Your task to perform on an android device: Open calendar and show me the second week of next month Image 0: 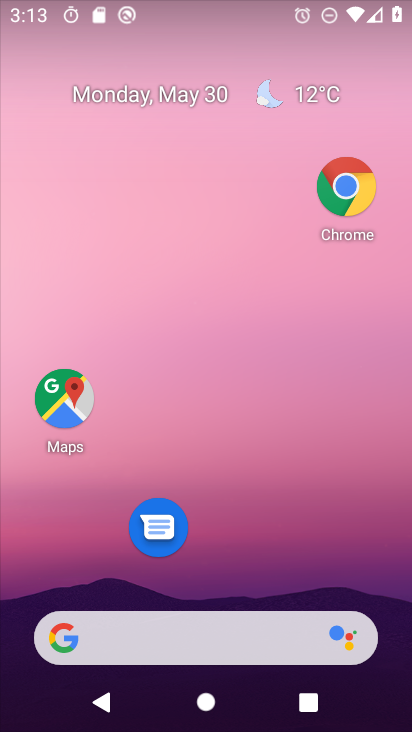
Step 0: drag from (183, 518) to (244, 116)
Your task to perform on an android device: Open calendar and show me the second week of next month Image 1: 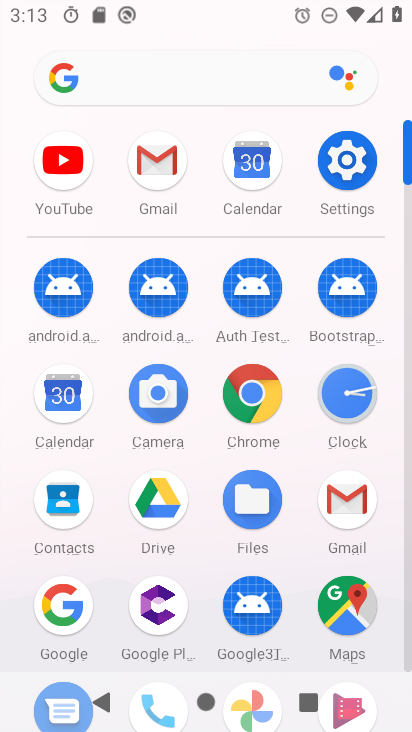
Step 1: drag from (186, 394) to (220, 57)
Your task to perform on an android device: Open calendar and show me the second week of next month Image 2: 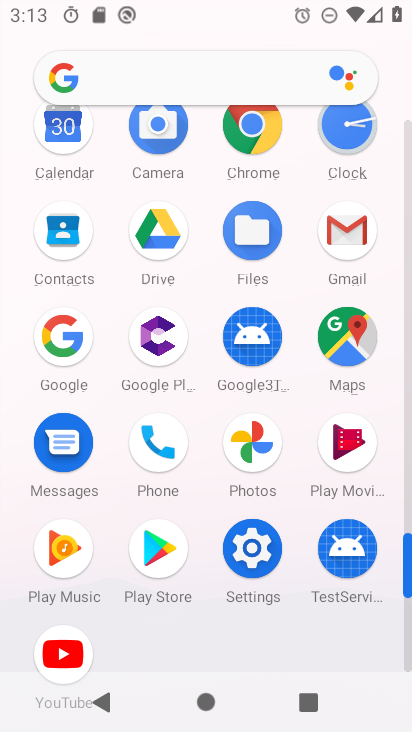
Step 2: click (48, 128)
Your task to perform on an android device: Open calendar and show me the second week of next month Image 3: 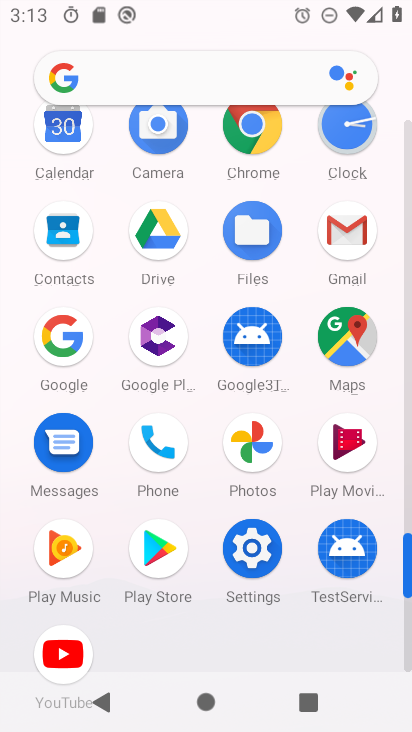
Step 3: click (48, 128)
Your task to perform on an android device: Open calendar and show me the second week of next month Image 4: 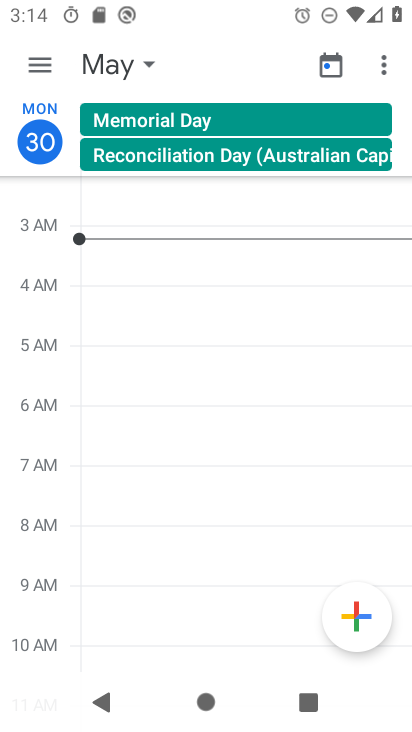
Step 4: click (131, 68)
Your task to perform on an android device: Open calendar and show me the second week of next month Image 5: 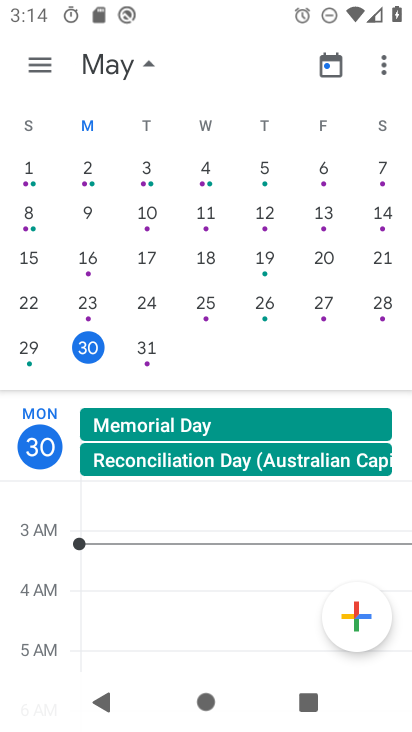
Step 5: drag from (368, 246) to (1, 314)
Your task to perform on an android device: Open calendar and show me the second week of next month Image 6: 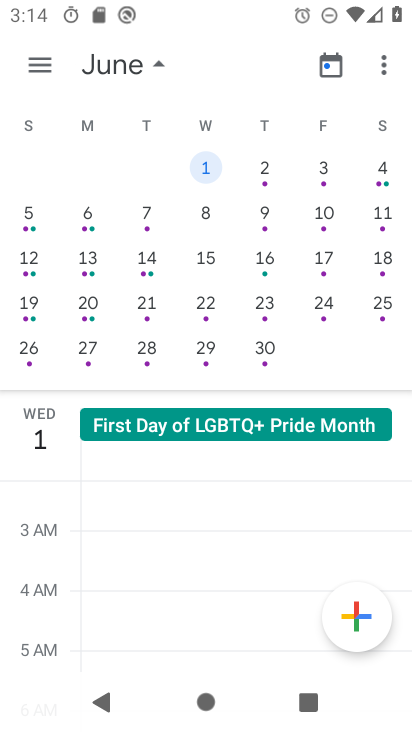
Step 6: click (268, 214)
Your task to perform on an android device: Open calendar and show me the second week of next month Image 7: 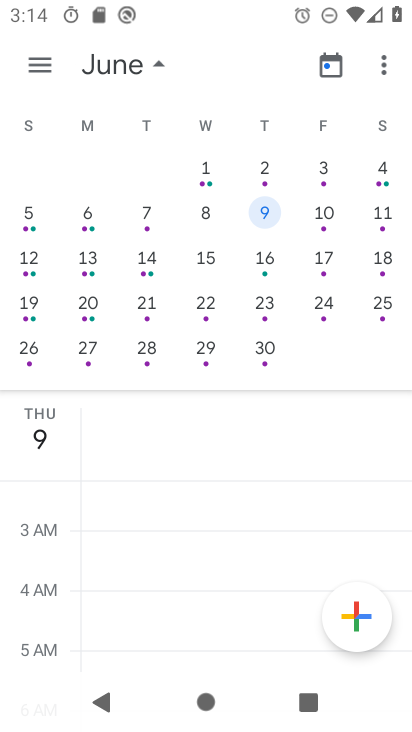
Step 7: task complete